Your task to perform on an android device: check out phone information Image 0: 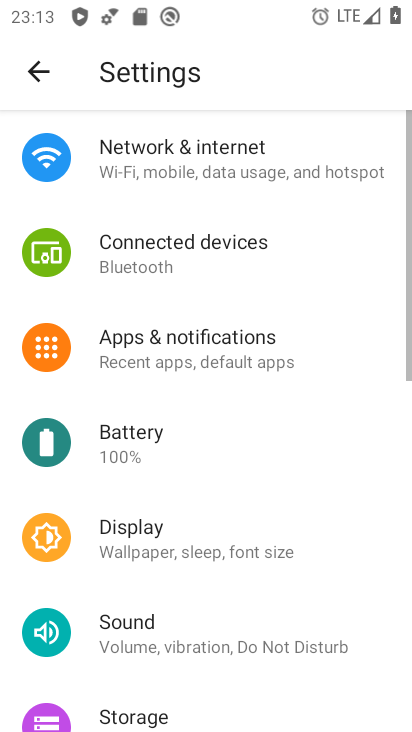
Step 0: press home button
Your task to perform on an android device: check out phone information Image 1: 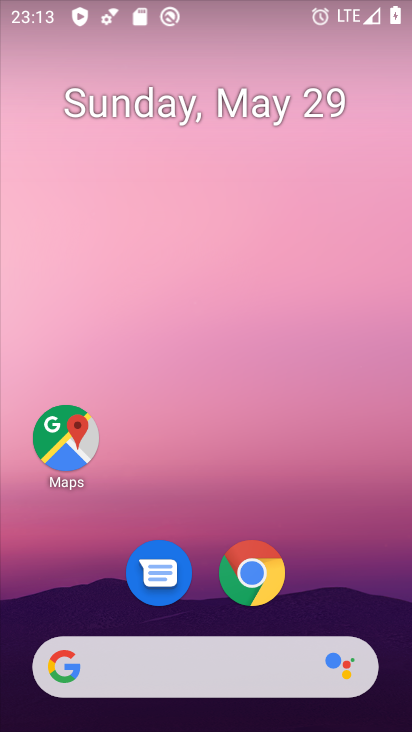
Step 1: drag from (359, 474) to (217, 7)
Your task to perform on an android device: check out phone information Image 2: 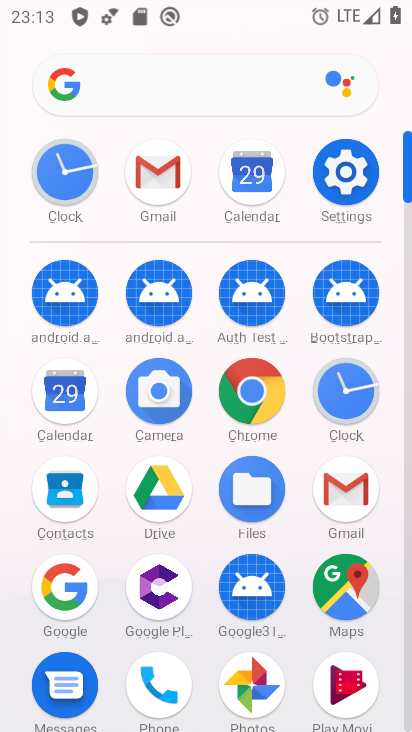
Step 2: click (343, 182)
Your task to perform on an android device: check out phone information Image 3: 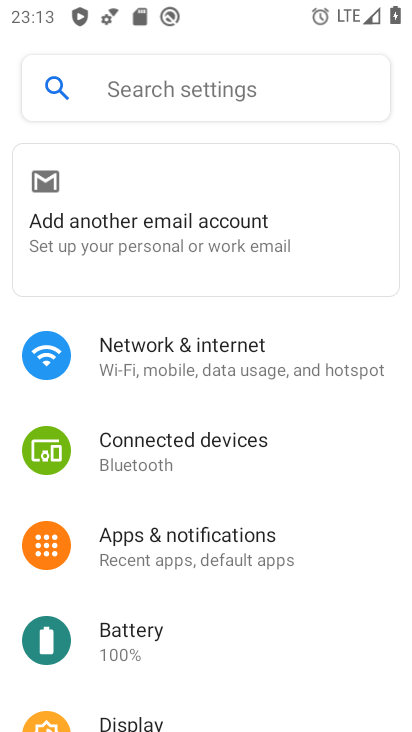
Step 3: drag from (293, 645) to (171, 15)
Your task to perform on an android device: check out phone information Image 4: 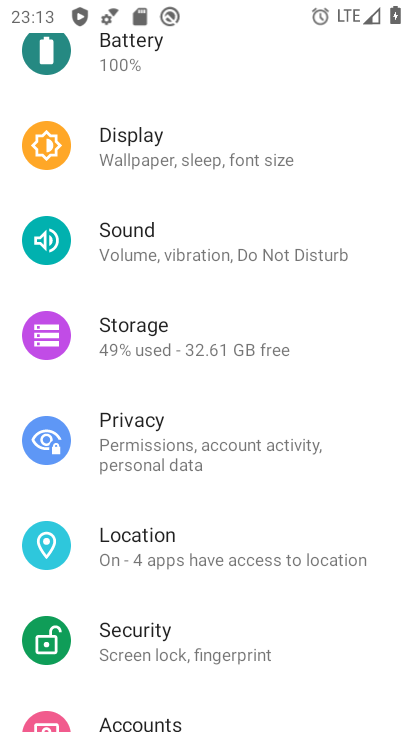
Step 4: drag from (263, 672) to (166, 36)
Your task to perform on an android device: check out phone information Image 5: 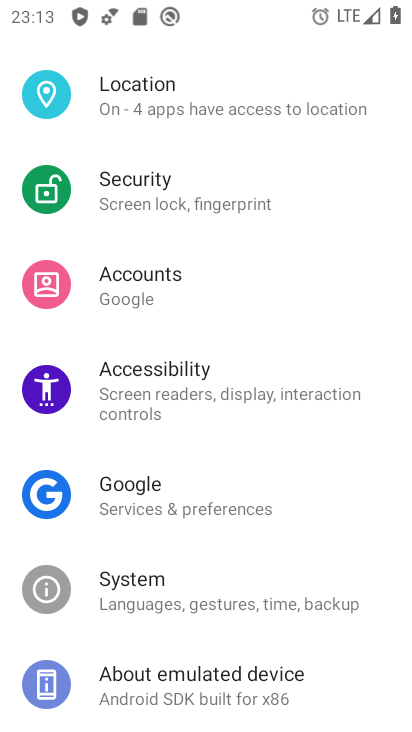
Step 5: click (196, 678)
Your task to perform on an android device: check out phone information Image 6: 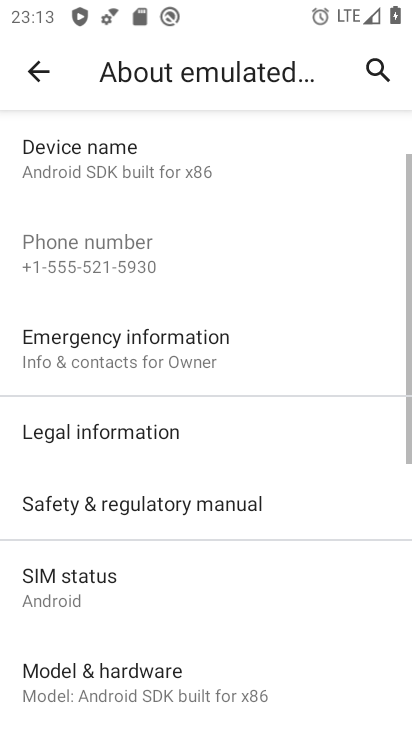
Step 6: drag from (271, 634) to (238, 111)
Your task to perform on an android device: check out phone information Image 7: 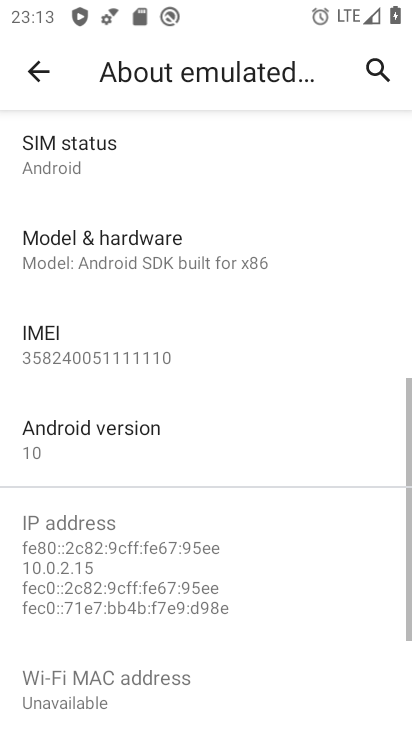
Step 7: click (196, 456)
Your task to perform on an android device: check out phone information Image 8: 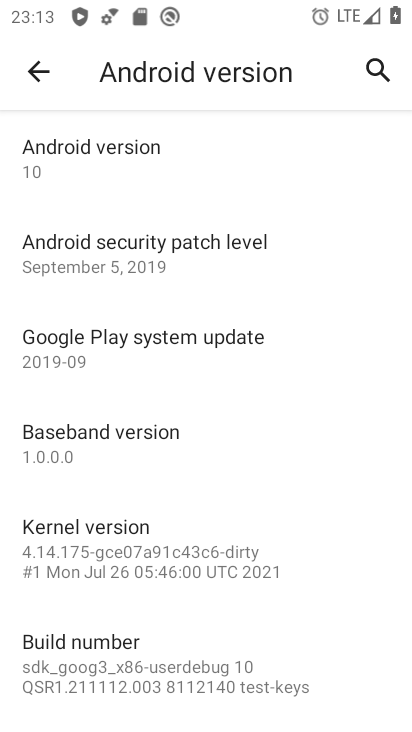
Step 8: task complete